Your task to perform on an android device: open app "Reddit" (install if not already installed), go to login, and select forgot password Image 0: 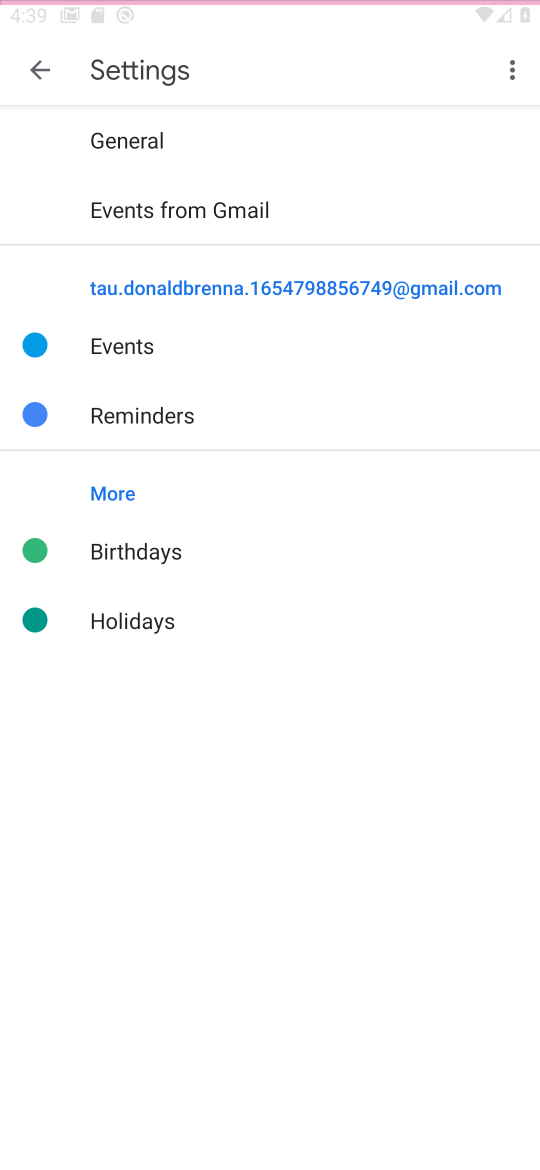
Step 0: press home button
Your task to perform on an android device: open app "Reddit" (install if not already installed), go to login, and select forgot password Image 1: 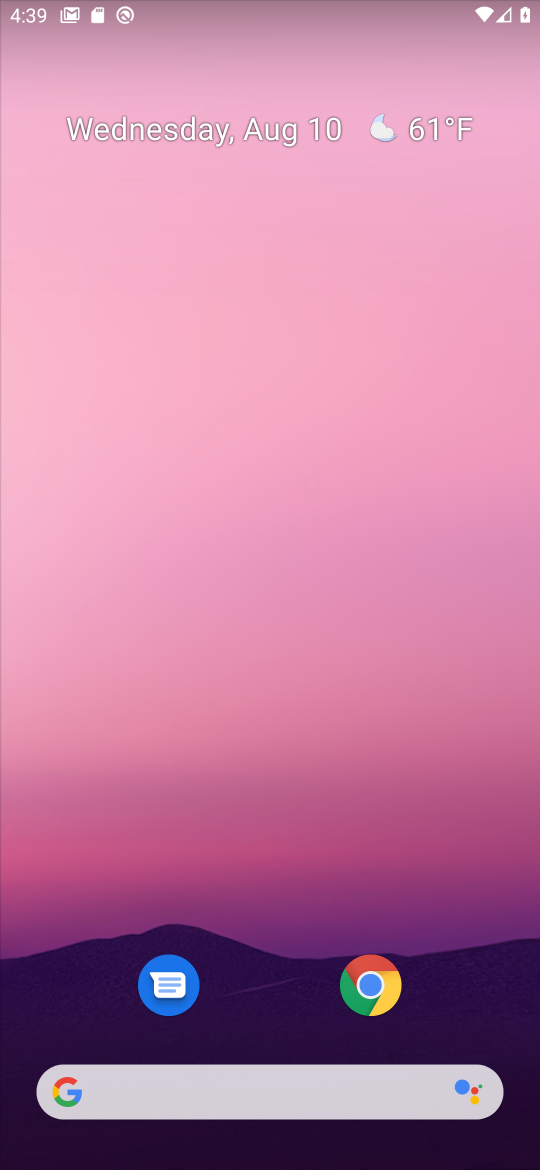
Step 1: drag from (381, 1002) to (304, 1012)
Your task to perform on an android device: open app "Reddit" (install if not already installed), go to login, and select forgot password Image 2: 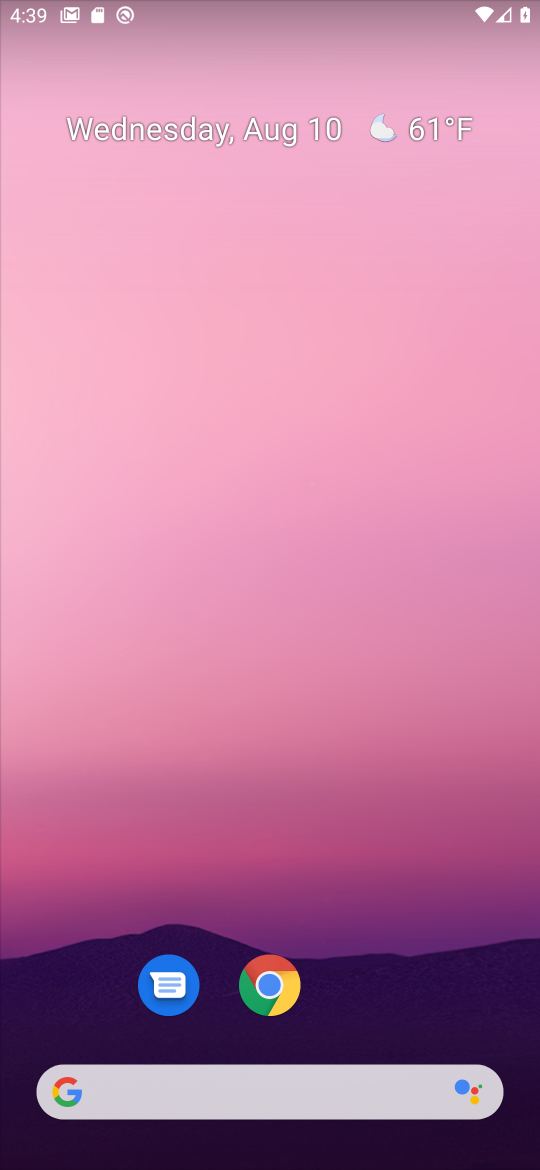
Step 2: drag from (343, 886) to (364, 18)
Your task to perform on an android device: open app "Reddit" (install if not already installed), go to login, and select forgot password Image 3: 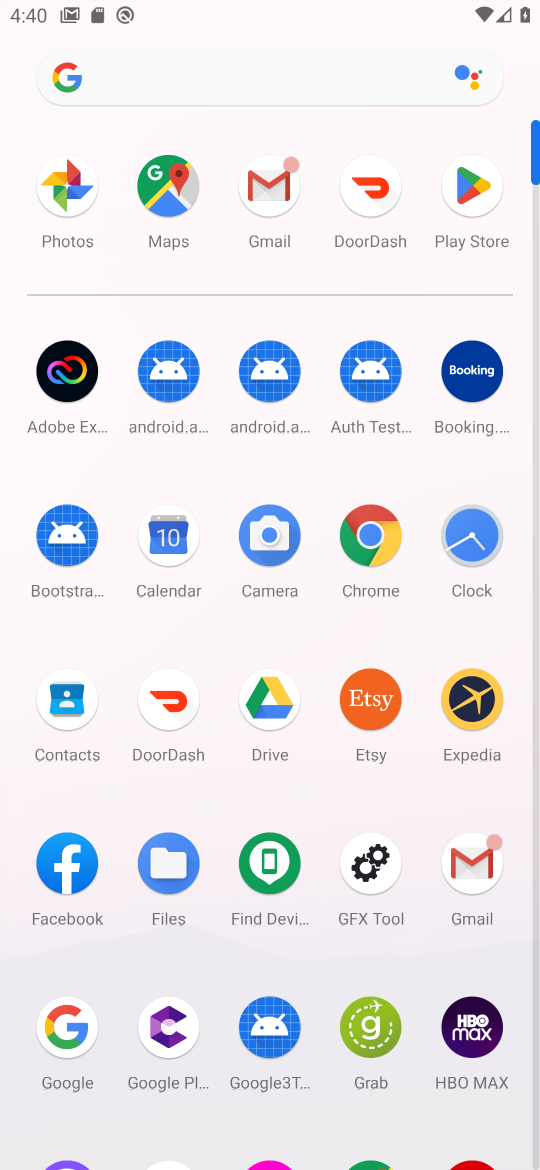
Step 3: click (479, 192)
Your task to perform on an android device: open app "Reddit" (install if not already installed), go to login, and select forgot password Image 4: 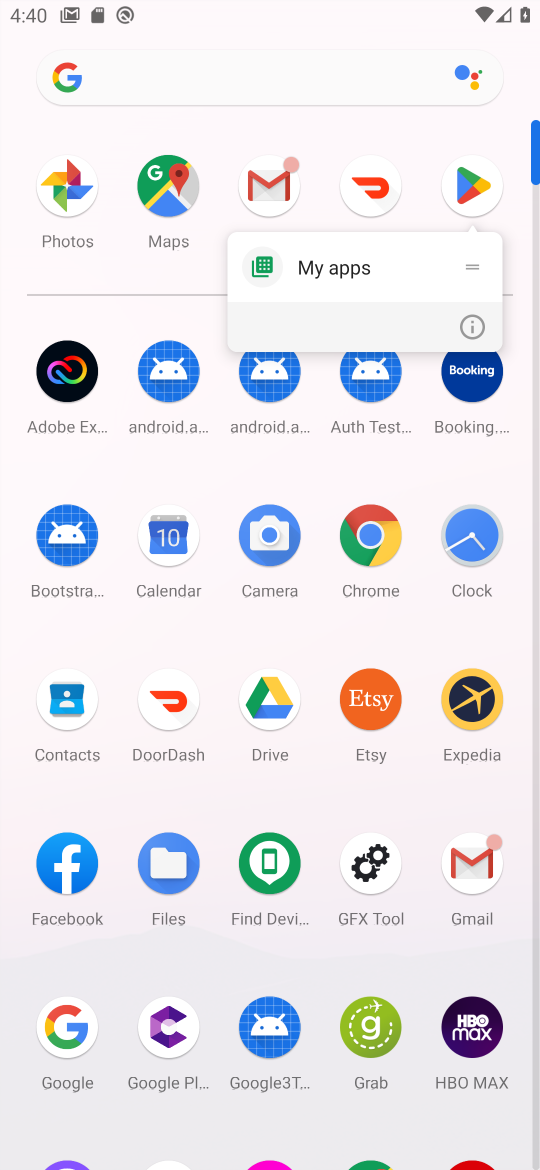
Step 4: click (467, 188)
Your task to perform on an android device: open app "Reddit" (install if not already installed), go to login, and select forgot password Image 5: 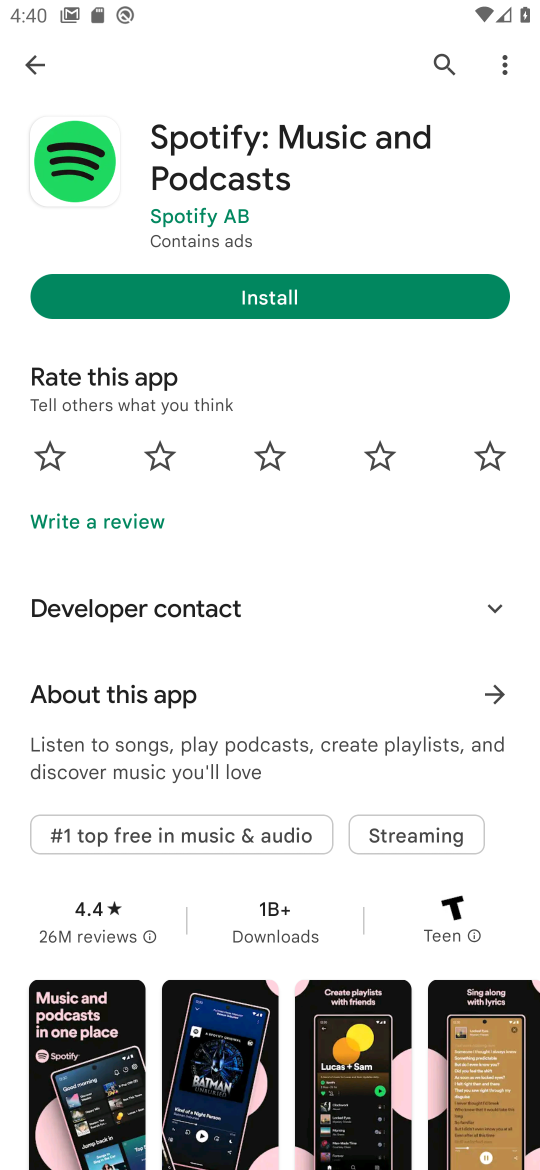
Step 5: click (36, 64)
Your task to perform on an android device: open app "Reddit" (install if not already installed), go to login, and select forgot password Image 6: 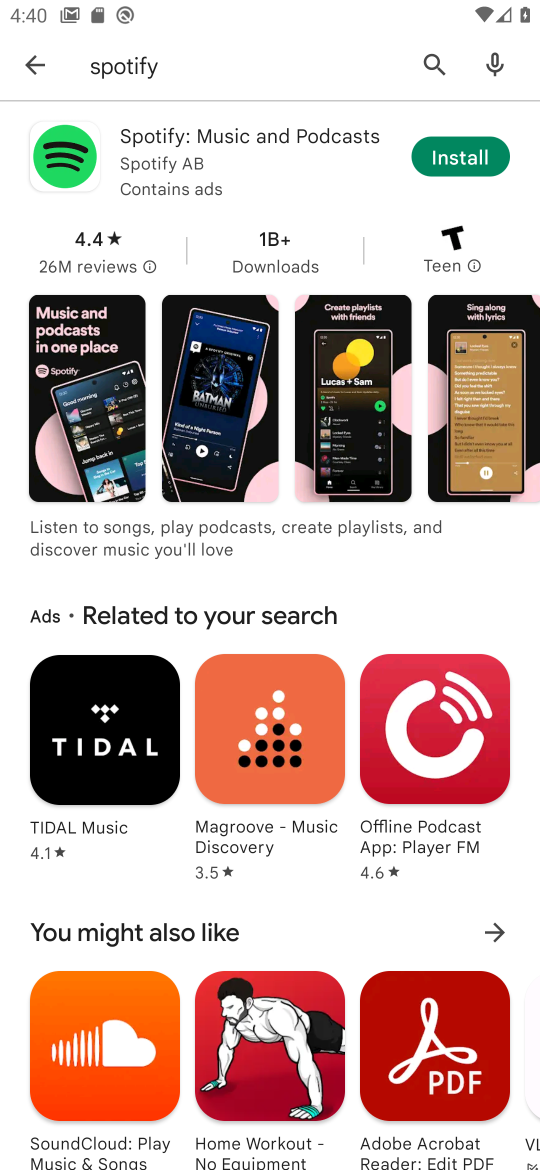
Step 6: click (39, 64)
Your task to perform on an android device: open app "Reddit" (install if not already installed), go to login, and select forgot password Image 7: 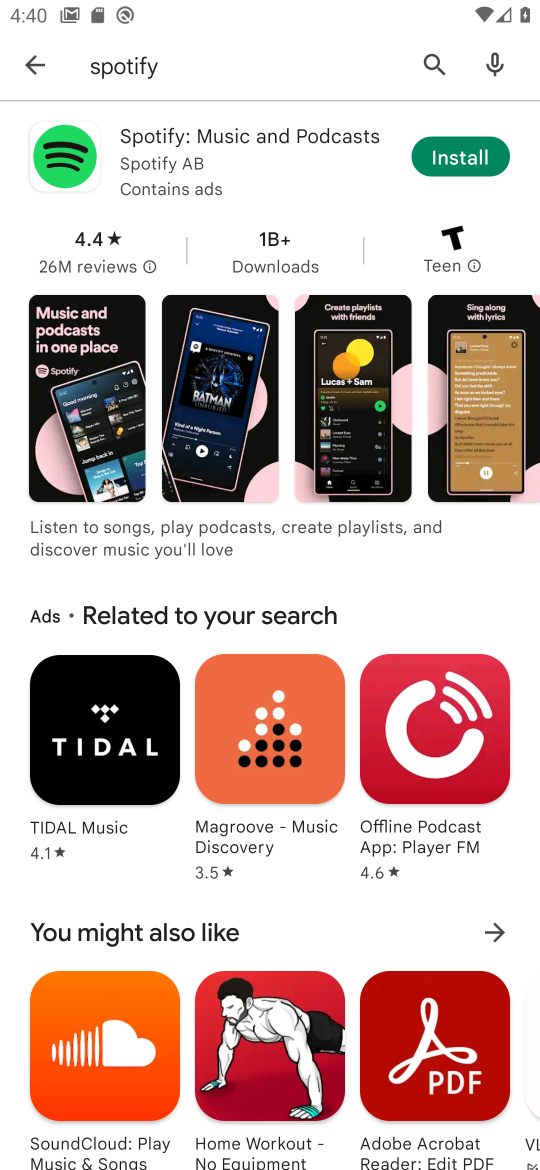
Step 7: click (23, 57)
Your task to perform on an android device: open app "Reddit" (install if not already installed), go to login, and select forgot password Image 8: 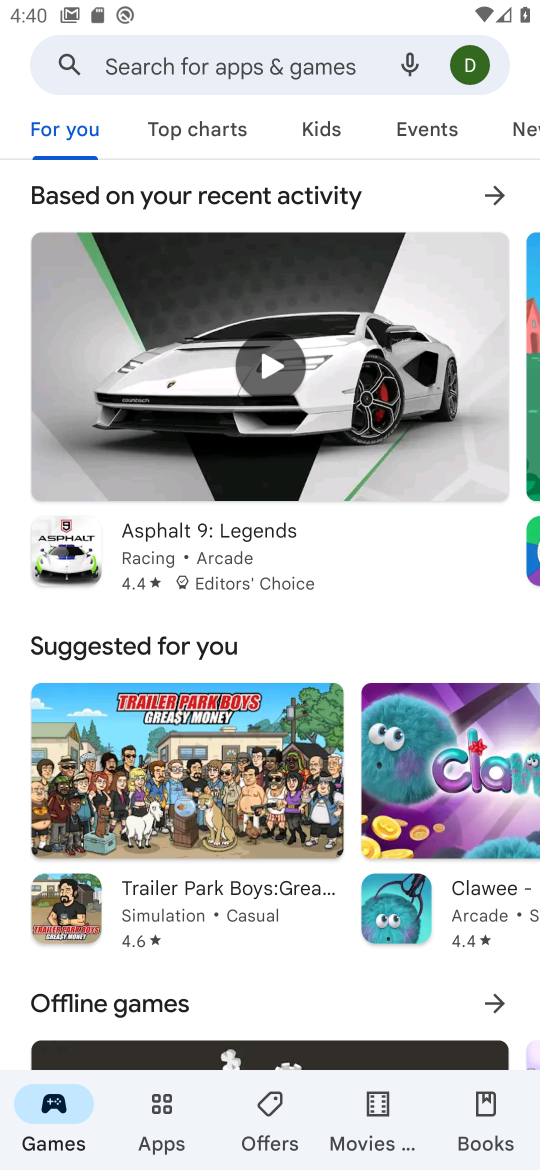
Step 8: click (130, 71)
Your task to perform on an android device: open app "Reddit" (install if not already installed), go to login, and select forgot password Image 9: 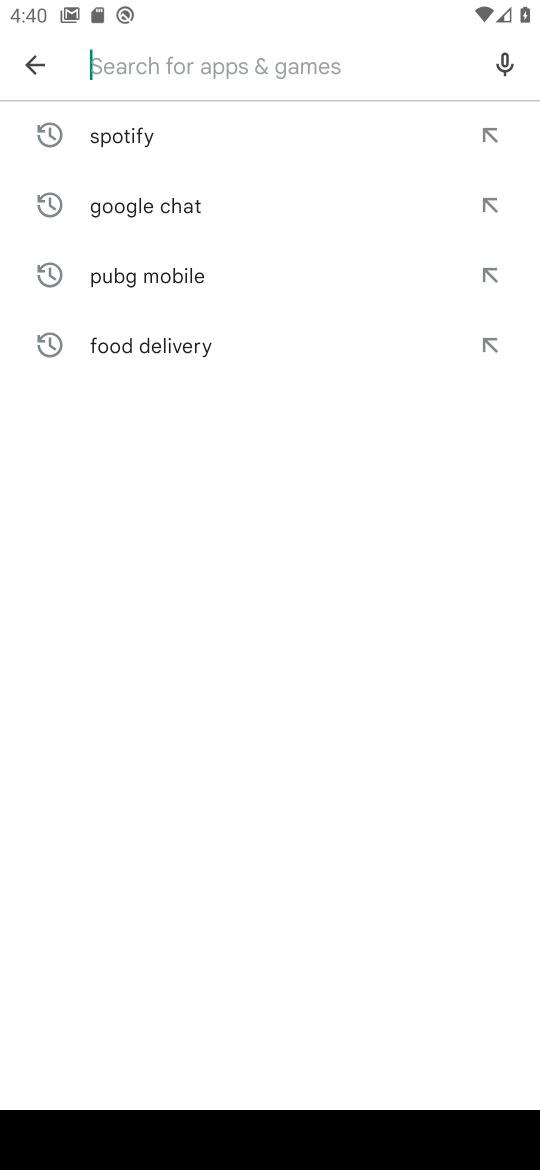
Step 9: type "Reddit"
Your task to perform on an android device: open app "Reddit" (install if not already installed), go to login, and select forgot password Image 10: 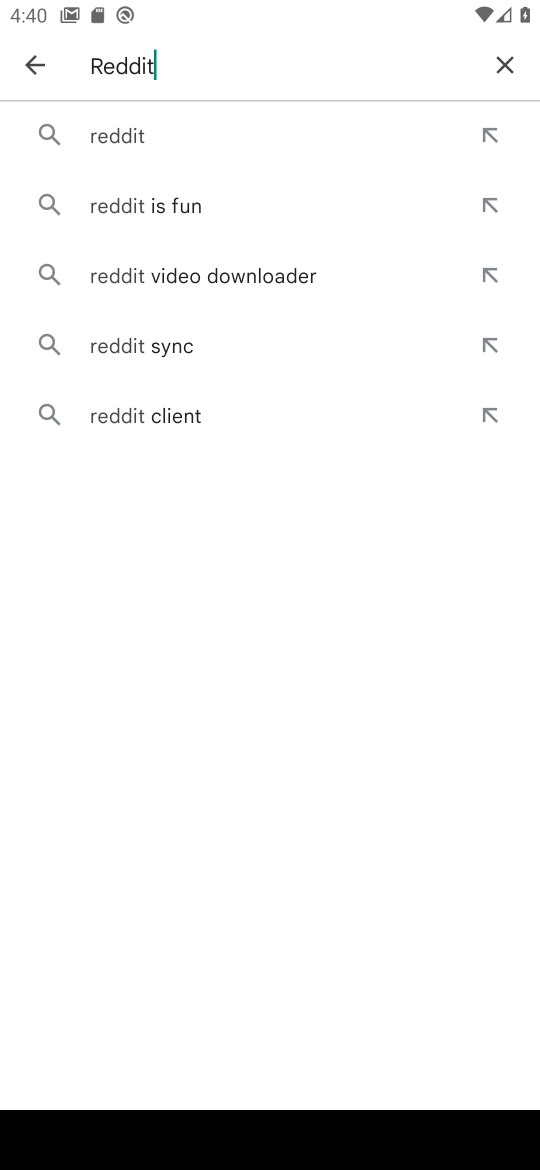
Step 10: click (127, 130)
Your task to perform on an android device: open app "Reddit" (install if not already installed), go to login, and select forgot password Image 11: 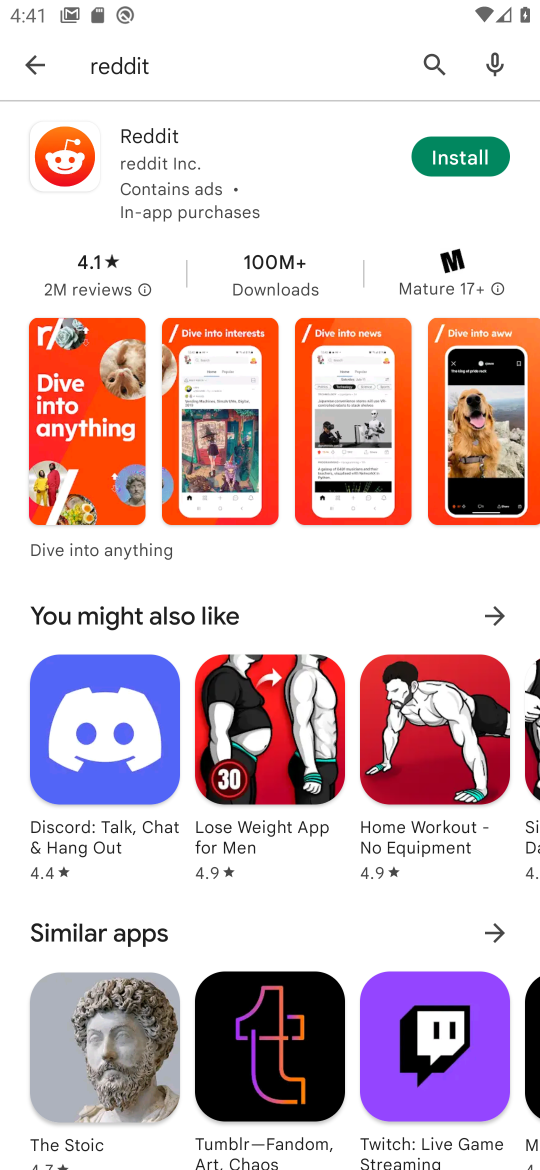
Step 11: click (462, 143)
Your task to perform on an android device: open app "Reddit" (install if not already installed), go to login, and select forgot password Image 12: 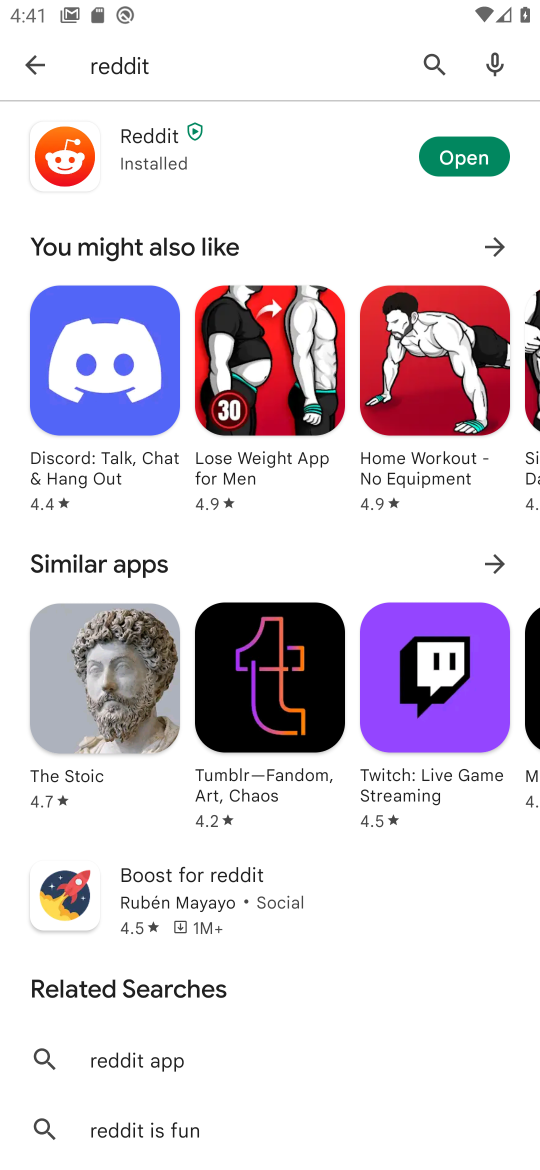
Step 12: click (457, 159)
Your task to perform on an android device: open app "Reddit" (install if not already installed), go to login, and select forgot password Image 13: 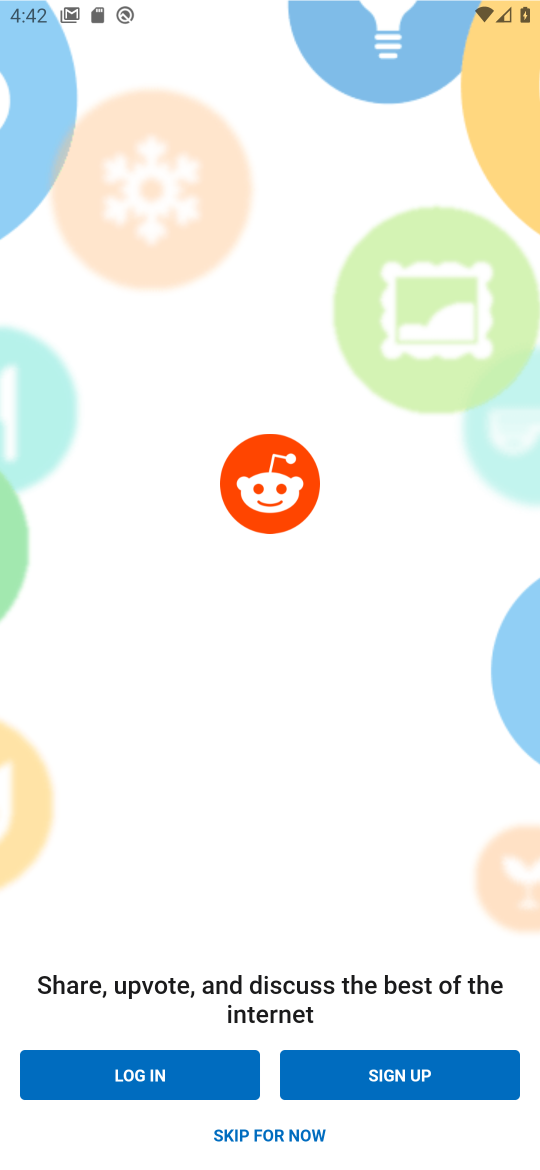
Step 13: click (167, 1069)
Your task to perform on an android device: open app "Reddit" (install if not already installed), go to login, and select forgot password Image 14: 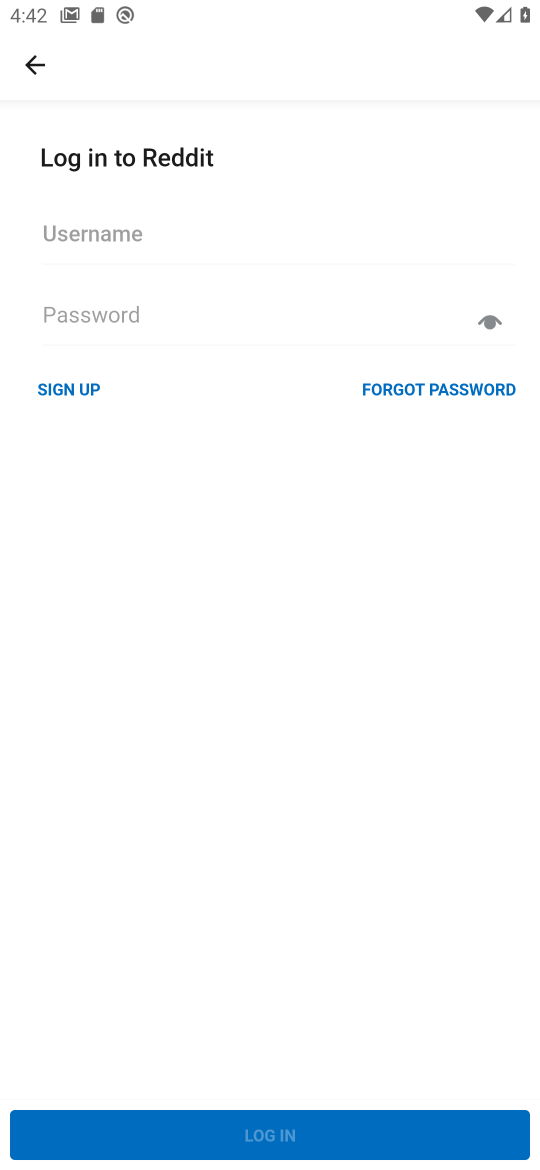
Step 14: click (415, 392)
Your task to perform on an android device: open app "Reddit" (install if not already installed), go to login, and select forgot password Image 15: 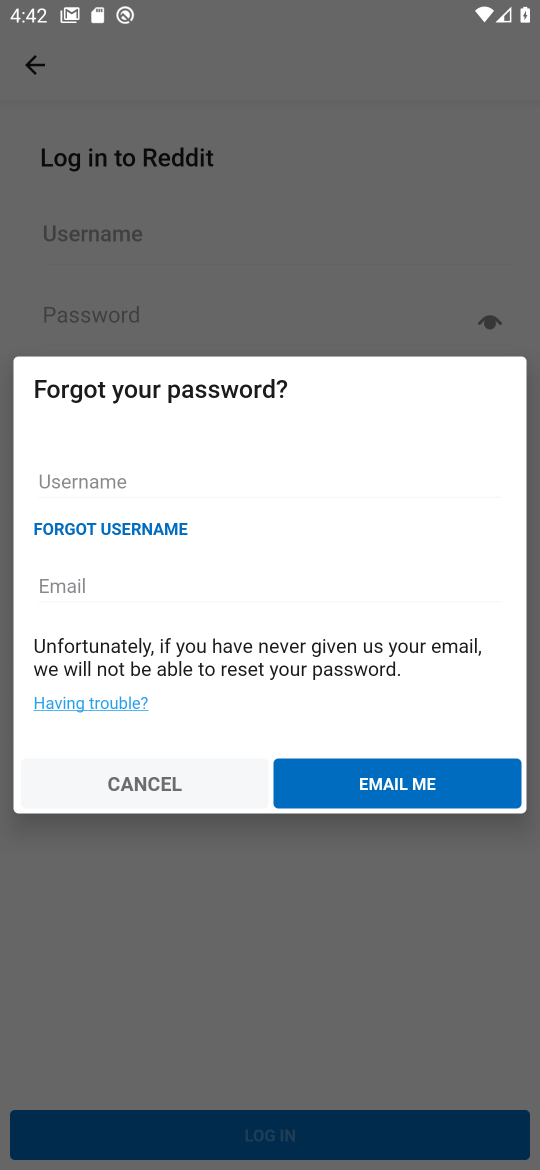
Step 15: task complete